Your task to perform on an android device: empty trash in the gmail app Image 0: 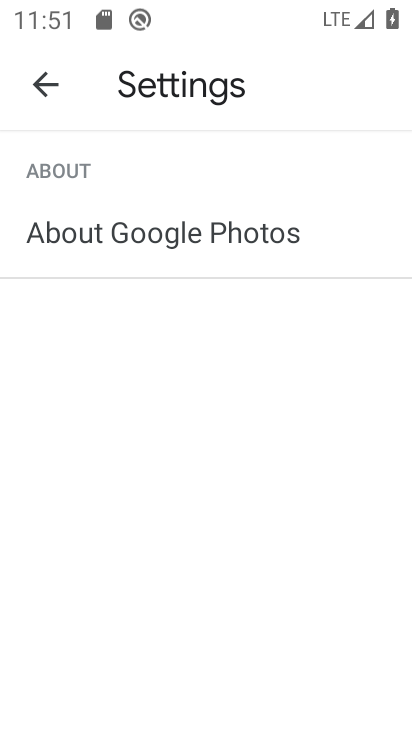
Step 0: click (36, 82)
Your task to perform on an android device: empty trash in the gmail app Image 1: 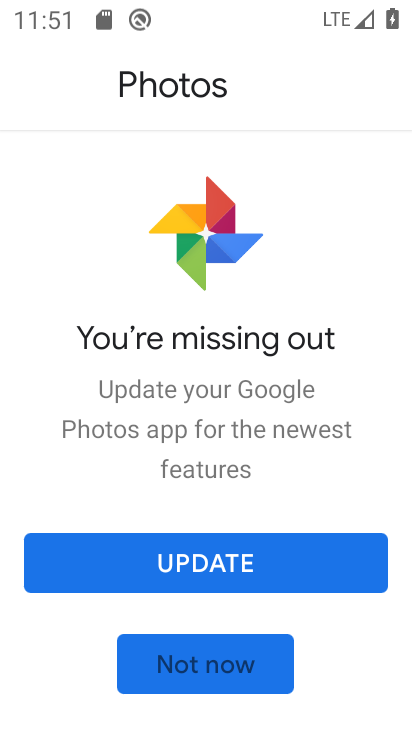
Step 1: press home button
Your task to perform on an android device: empty trash in the gmail app Image 2: 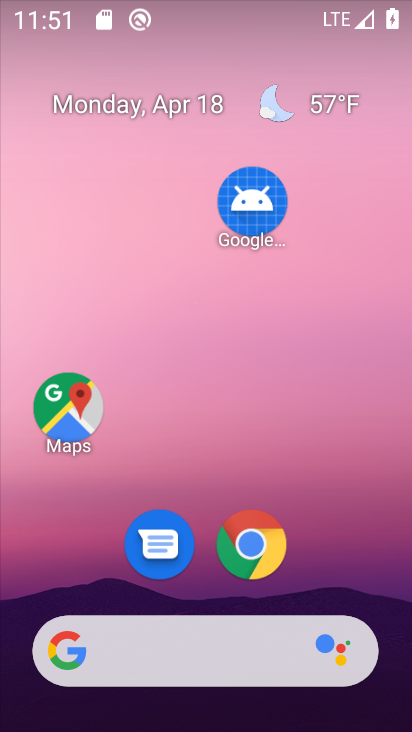
Step 2: drag from (153, 664) to (155, 285)
Your task to perform on an android device: empty trash in the gmail app Image 3: 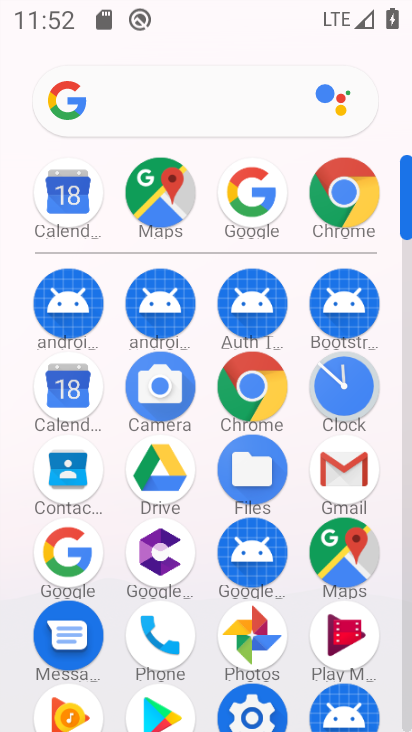
Step 3: click (334, 458)
Your task to perform on an android device: empty trash in the gmail app Image 4: 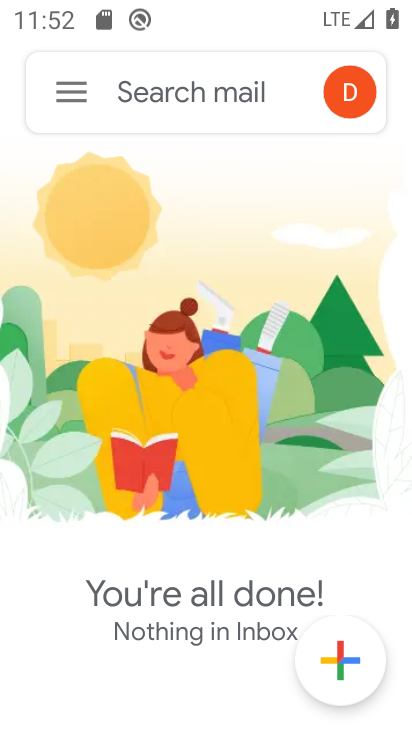
Step 4: click (82, 80)
Your task to perform on an android device: empty trash in the gmail app Image 5: 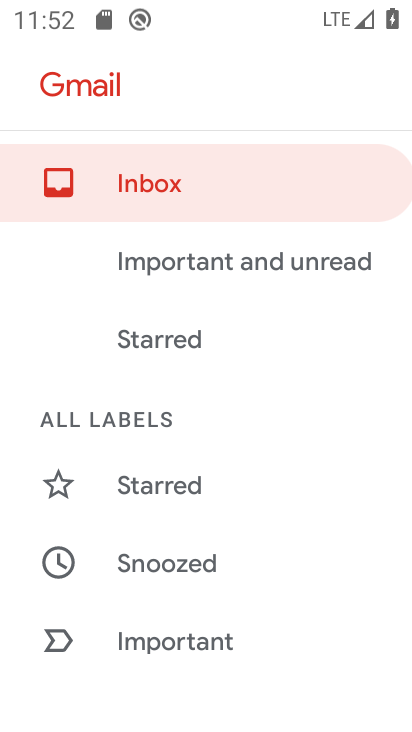
Step 5: drag from (189, 618) to (239, 148)
Your task to perform on an android device: empty trash in the gmail app Image 6: 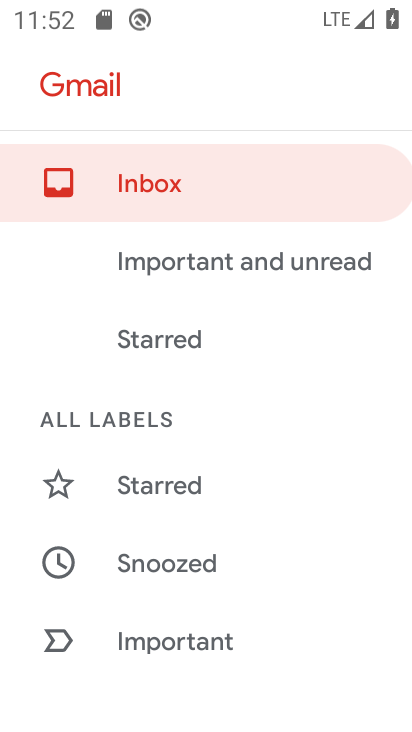
Step 6: drag from (191, 537) to (209, 112)
Your task to perform on an android device: empty trash in the gmail app Image 7: 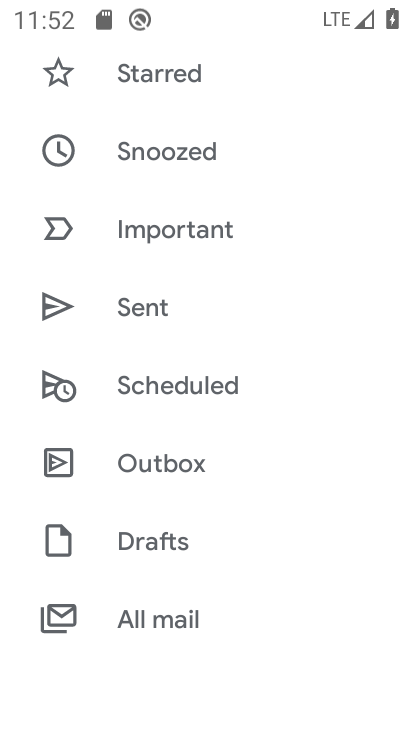
Step 7: drag from (156, 544) to (183, 169)
Your task to perform on an android device: empty trash in the gmail app Image 8: 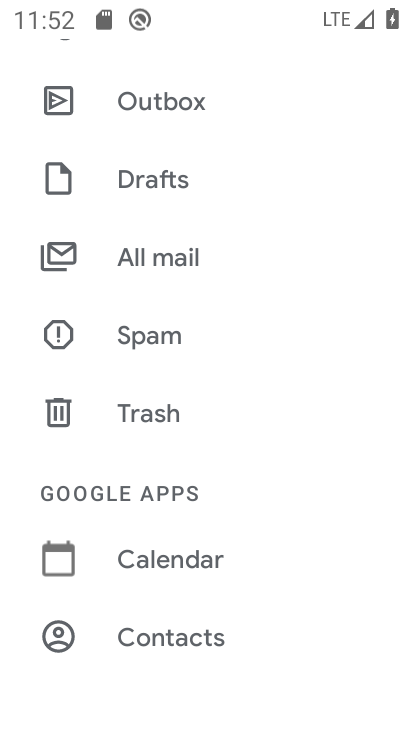
Step 8: click (159, 408)
Your task to perform on an android device: empty trash in the gmail app Image 9: 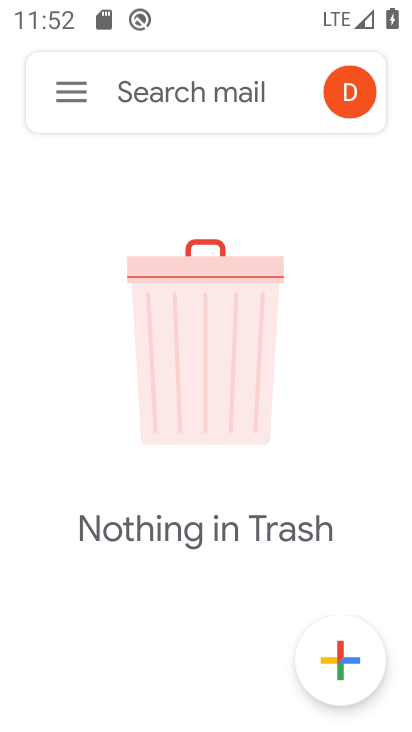
Step 9: task complete